Your task to perform on an android device: turn notification dots on Image 0: 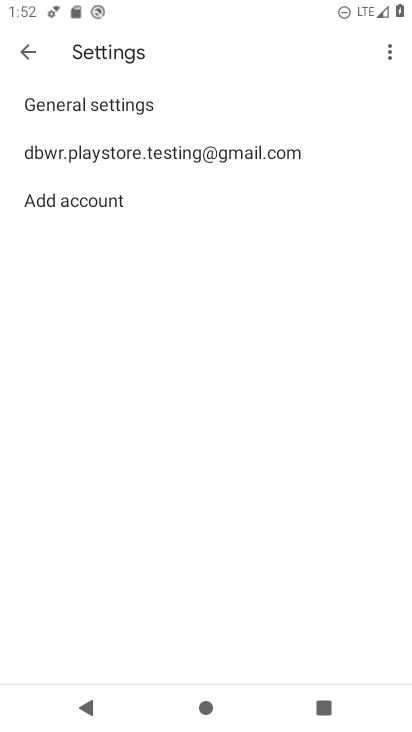
Step 0: press home button
Your task to perform on an android device: turn notification dots on Image 1: 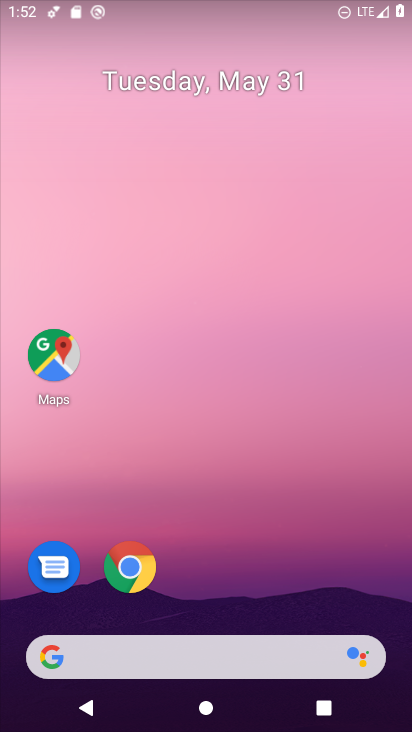
Step 1: drag from (198, 587) to (198, 220)
Your task to perform on an android device: turn notification dots on Image 2: 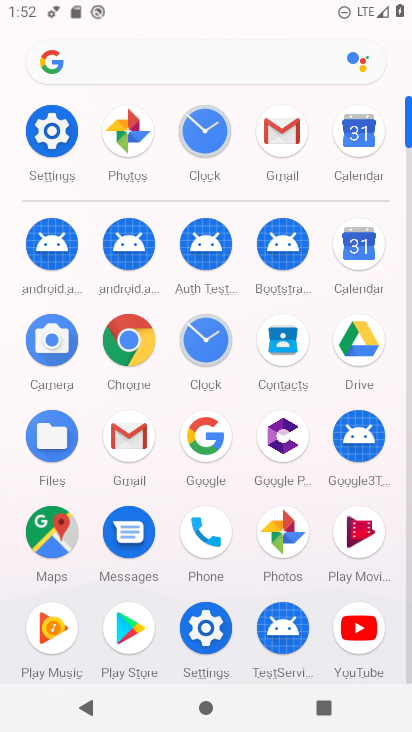
Step 2: click (63, 140)
Your task to perform on an android device: turn notification dots on Image 3: 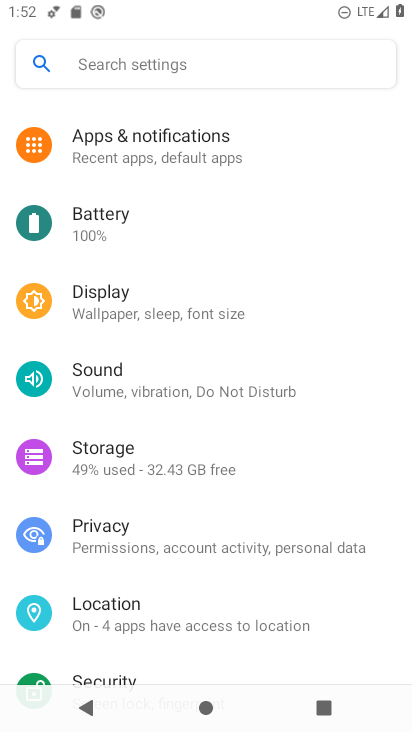
Step 3: click (90, 150)
Your task to perform on an android device: turn notification dots on Image 4: 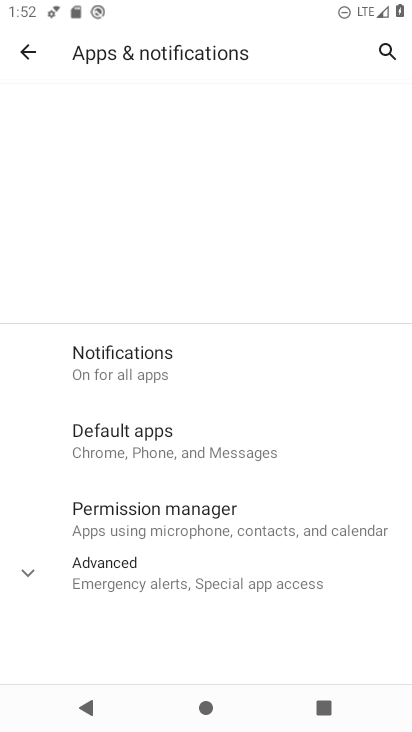
Step 4: click (123, 157)
Your task to perform on an android device: turn notification dots on Image 5: 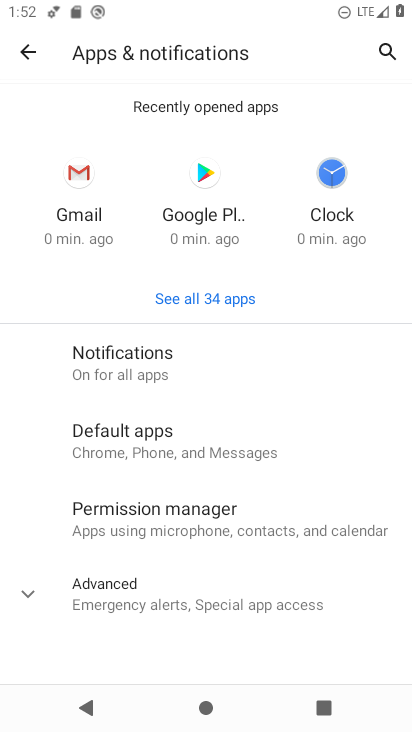
Step 5: drag from (142, 502) to (169, 282)
Your task to perform on an android device: turn notification dots on Image 6: 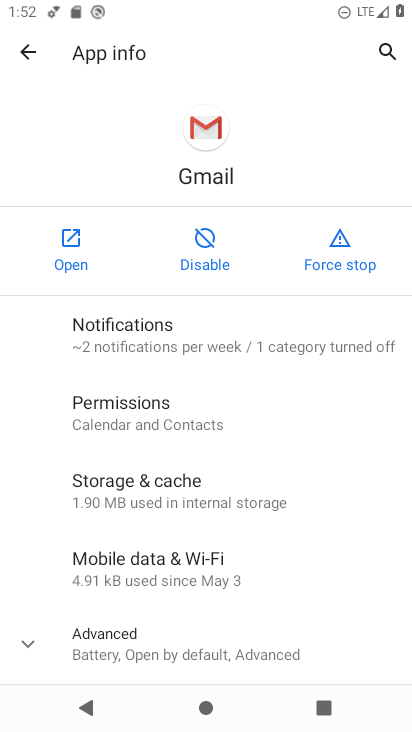
Step 6: click (157, 332)
Your task to perform on an android device: turn notification dots on Image 7: 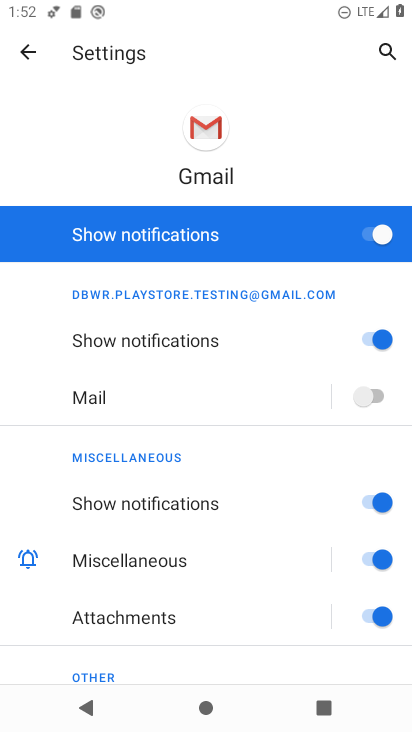
Step 7: drag from (217, 562) to (225, 319)
Your task to perform on an android device: turn notification dots on Image 8: 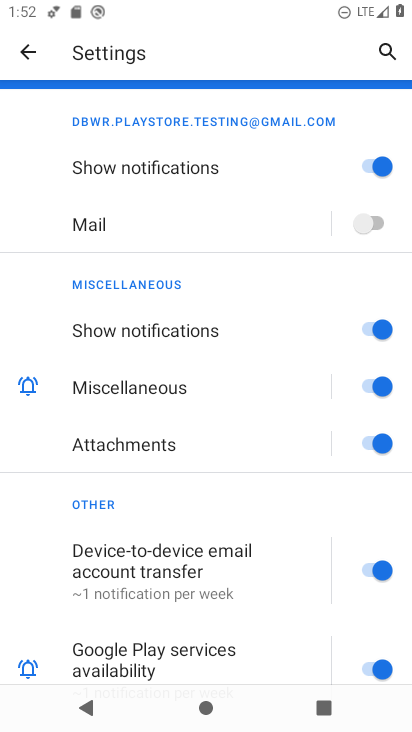
Step 8: drag from (235, 639) to (252, 421)
Your task to perform on an android device: turn notification dots on Image 9: 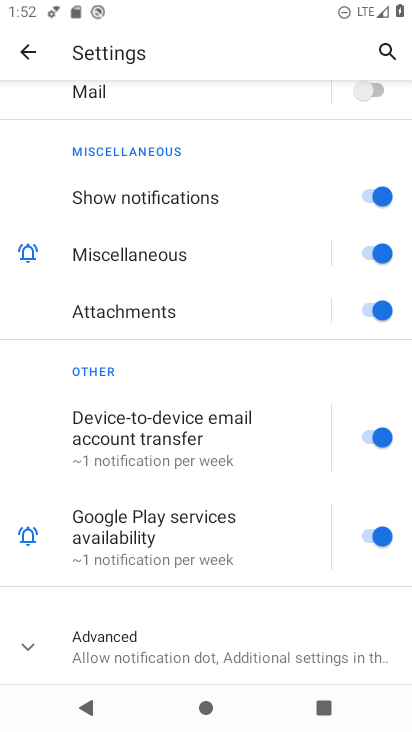
Step 9: drag from (263, 262) to (266, 542)
Your task to perform on an android device: turn notification dots on Image 10: 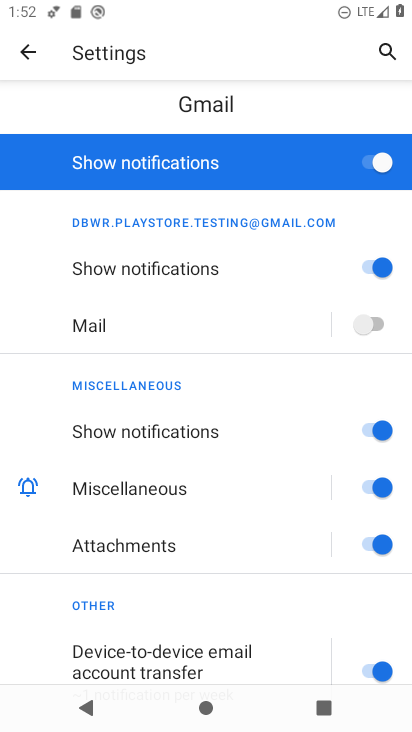
Step 10: drag from (211, 267) to (240, 550)
Your task to perform on an android device: turn notification dots on Image 11: 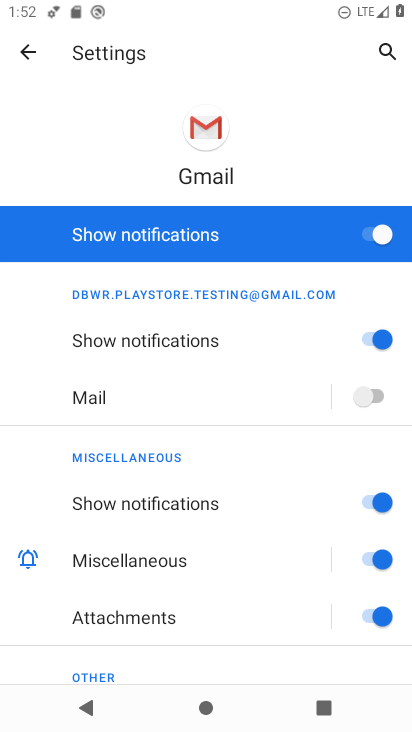
Step 11: click (30, 42)
Your task to perform on an android device: turn notification dots on Image 12: 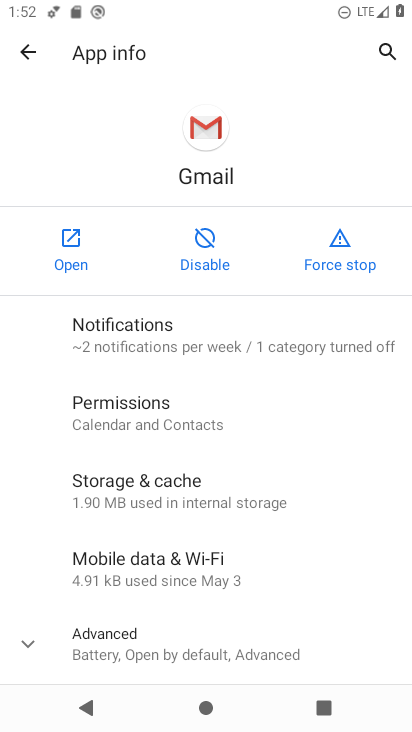
Step 12: drag from (218, 619) to (234, 406)
Your task to perform on an android device: turn notification dots on Image 13: 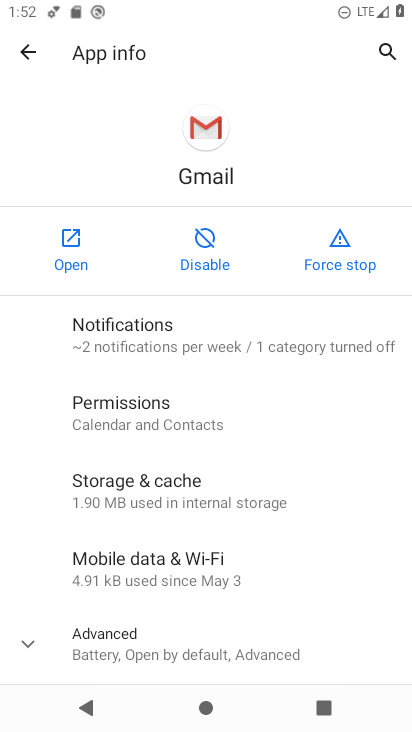
Step 13: click (190, 651)
Your task to perform on an android device: turn notification dots on Image 14: 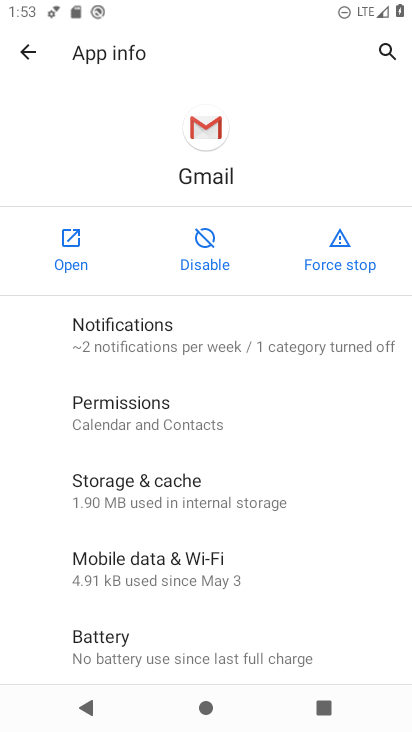
Step 14: drag from (167, 575) to (167, 343)
Your task to perform on an android device: turn notification dots on Image 15: 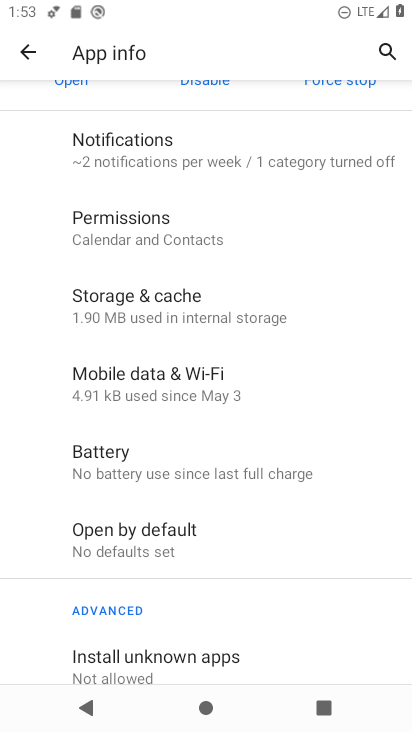
Step 15: click (180, 161)
Your task to perform on an android device: turn notification dots on Image 16: 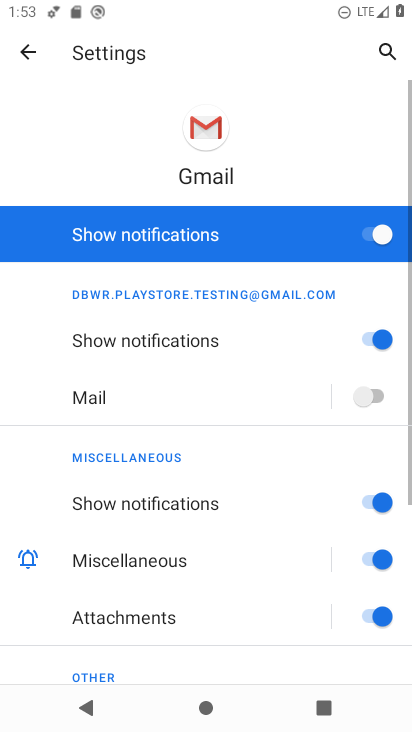
Step 16: drag from (261, 623) to (282, 377)
Your task to perform on an android device: turn notification dots on Image 17: 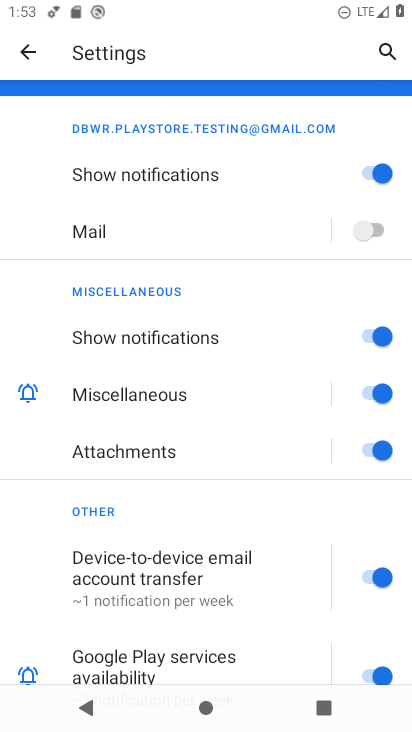
Step 17: drag from (207, 597) to (207, 221)
Your task to perform on an android device: turn notification dots on Image 18: 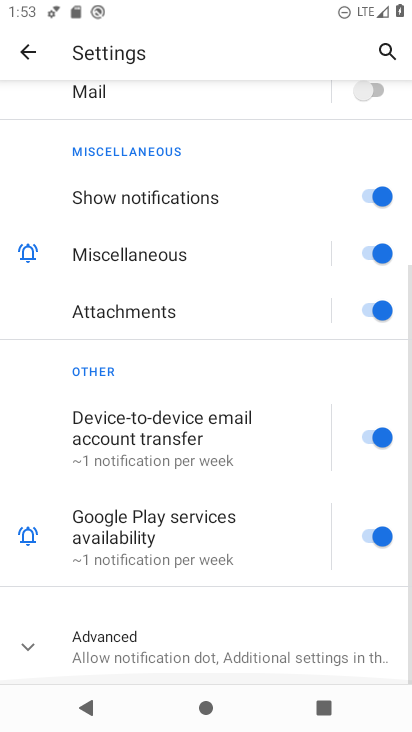
Step 18: drag from (219, 258) to (221, 564)
Your task to perform on an android device: turn notification dots on Image 19: 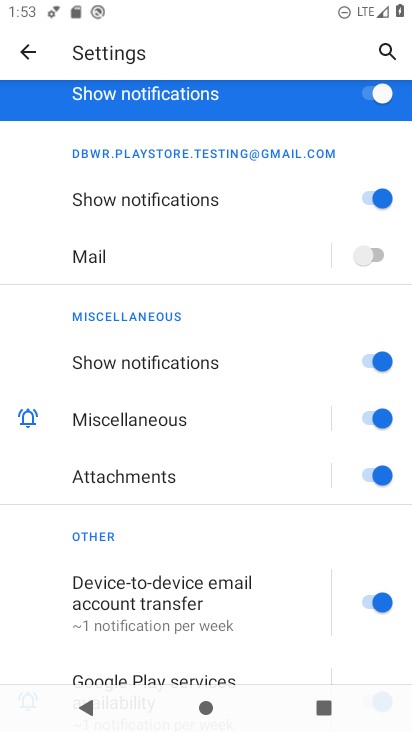
Step 19: drag from (251, 335) to (270, 565)
Your task to perform on an android device: turn notification dots on Image 20: 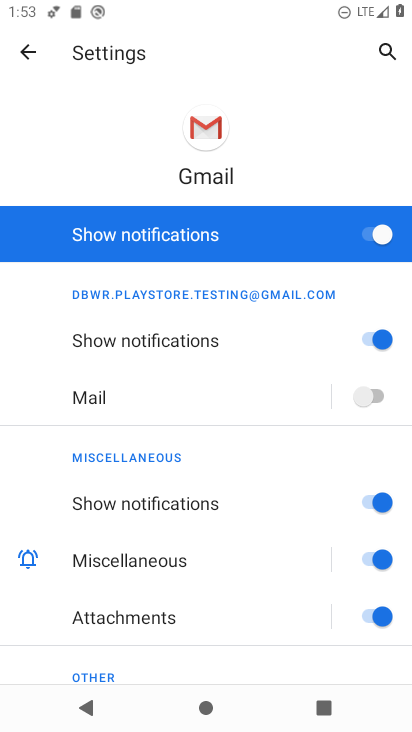
Step 20: click (22, 52)
Your task to perform on an android device: turn notification dots on Image 21: 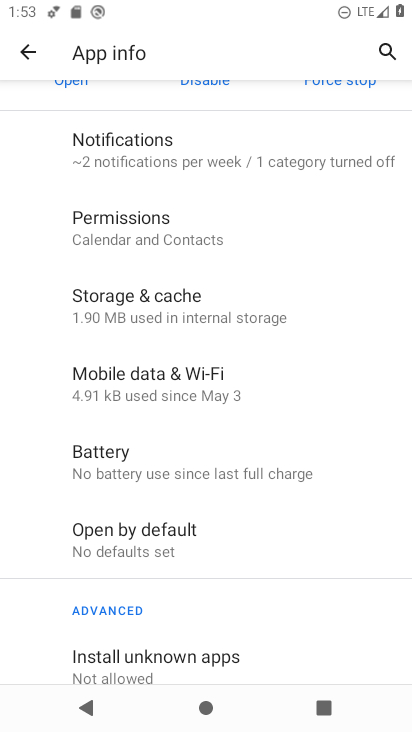
Step 21: click (164, 173)
Your task to perform on an android device: turn notification dots on Image 22: 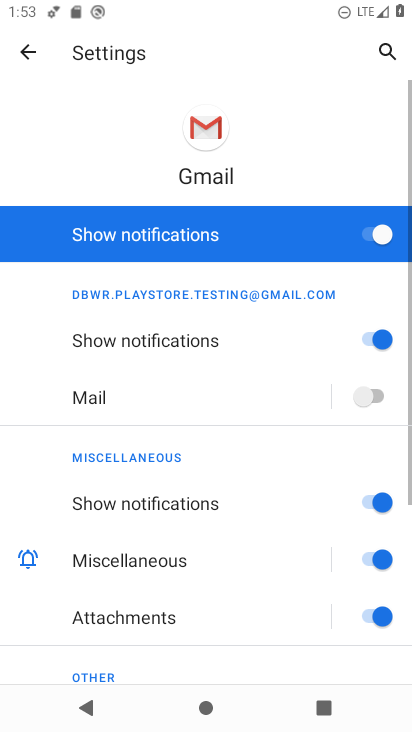
Step 22: drag from (232, 514) to (206, 235)
Your task to perform on an android device: turn notification dots on Image 23: 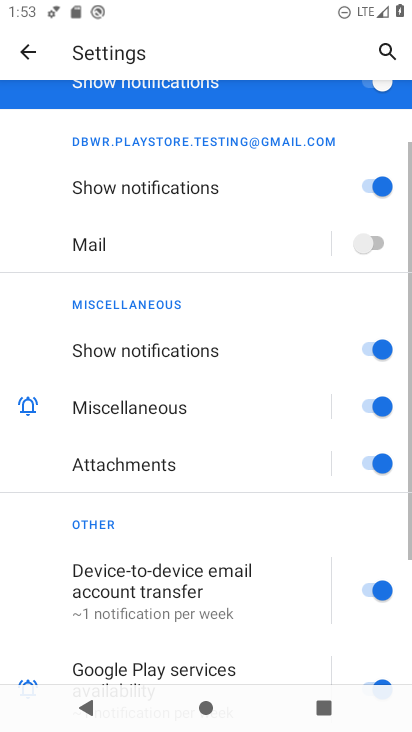
Step 23: drag from (205, 522) to (217, 232)
Your task to perform on an android device: turn notification dots on Image 24: 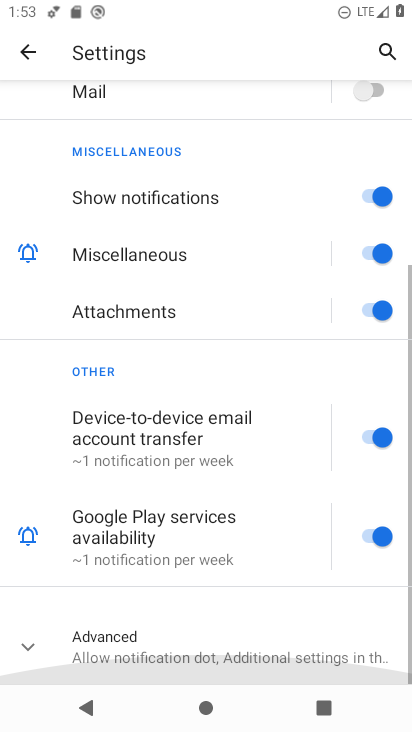
Step 24: drag from (214, 576) to (228, 222)
Your task to perform on an android device: turn notification dots on Image 25: 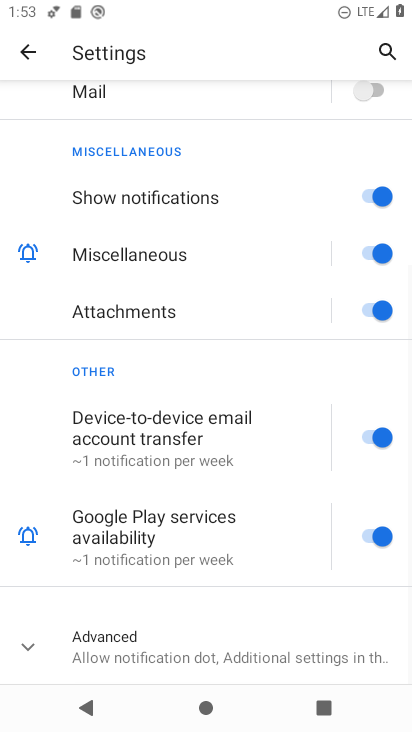
Step 25: click (199, 651)
Your task to perform on an android device: turn notification dots on Image 26: 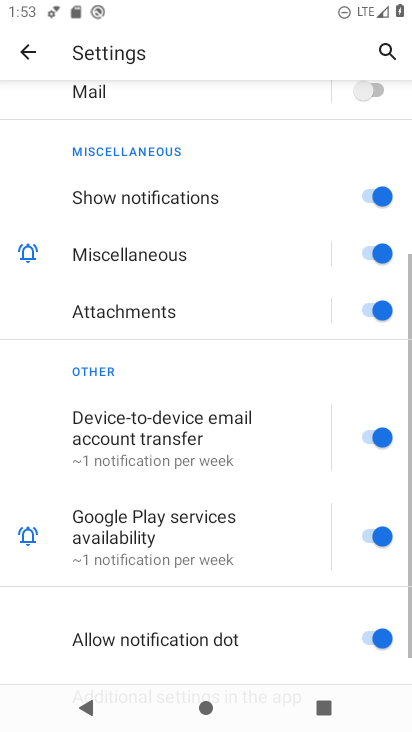
Step 26: task complete